Your task to perform on an android device: delete browsing data in the chrome app Image 0: 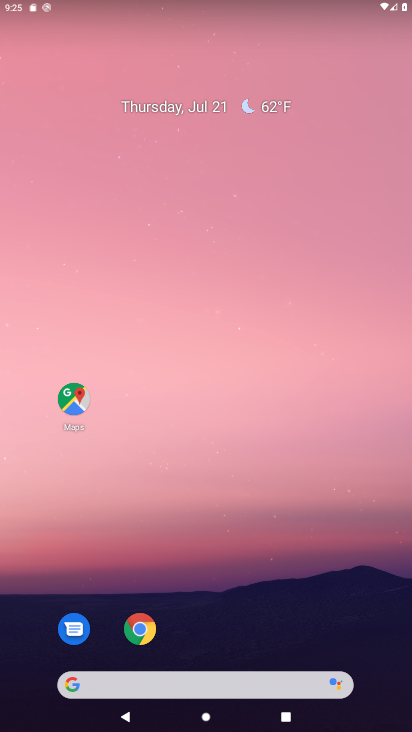
Step 0: drag from (194, 638) to (204, 219)
Your task to perform on an android device: delete browsing data in the chrome app Image 1: 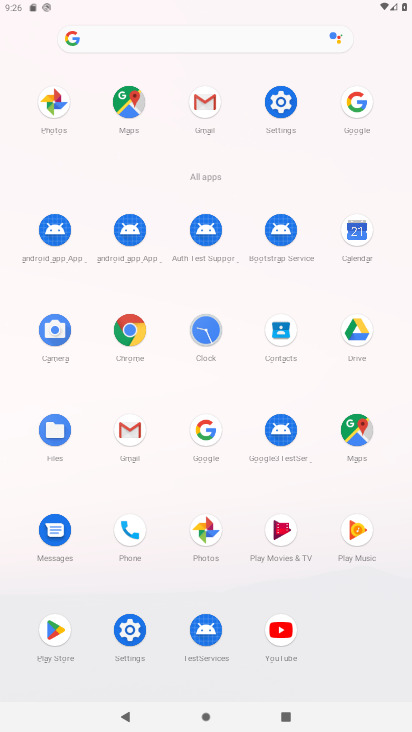
Step 1: click (133, 331)
Your task to perform on an android device: delete browsing data in the chrome app Image 2: 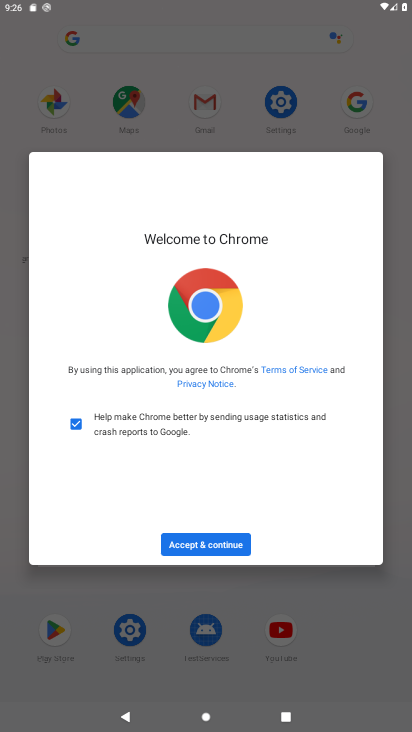
Step 2: click (208, 546)
Your task to perform on an android device: delete browsing data in the chrome app Image 3: 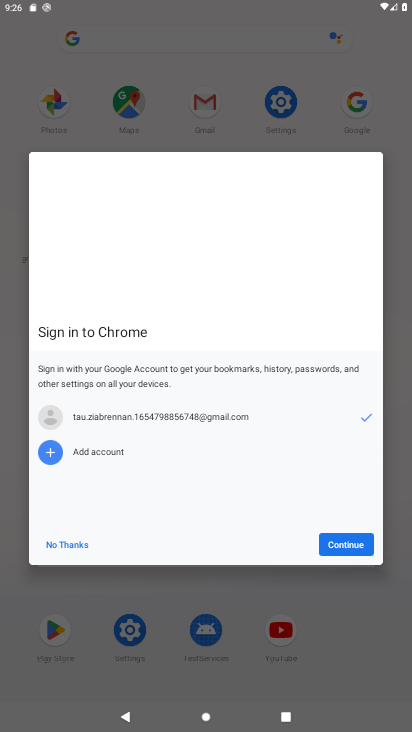
Step 3: click (355, 542)
Your task to perform on an android device: delete browsing data in the chrome app Image 4: 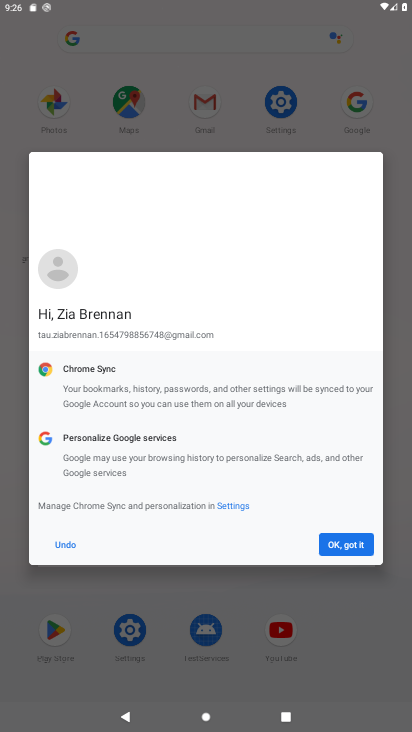
Step 4: click (355, 542)
Your task to perform on an android device: delete browsing data in the chrome app Image 5: 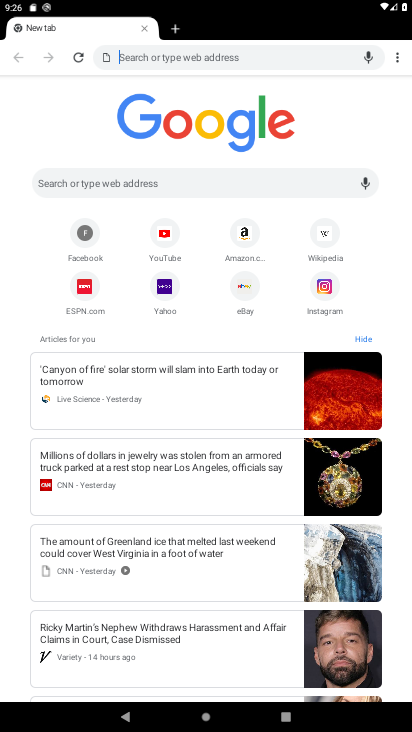
Step 5: click (399, 53)
Your task to perform on an android device: delete browsing data in the chrome app Image 6: 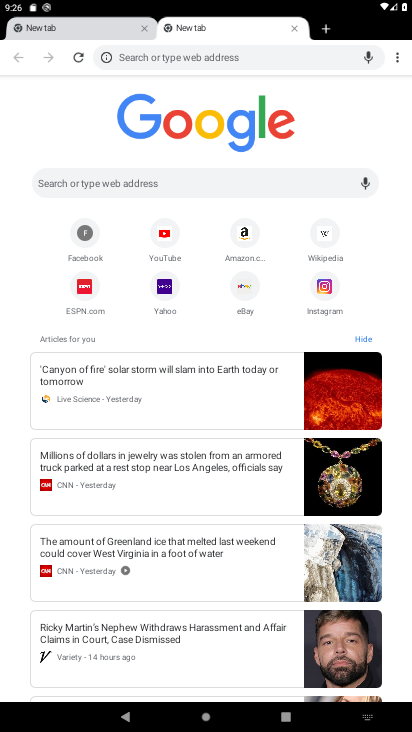
Step 6: click (406, 57)
Your task to perform on an android device: delete browsing data in the chrome app Image 7: 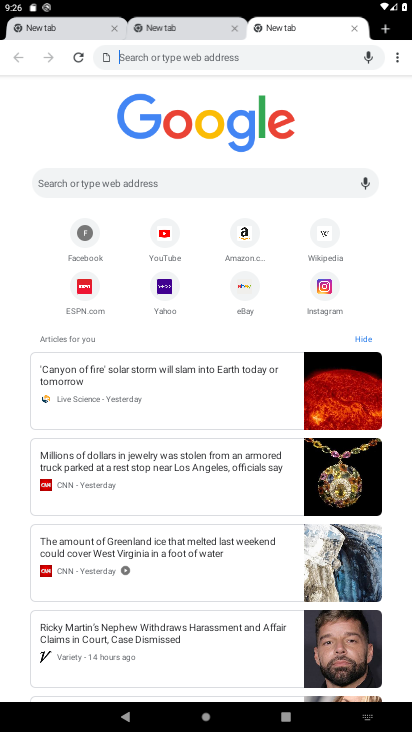
Step 7: click (406, 57)
Your task to perform on an android device: delete browsing data in the chrome app Image 8: 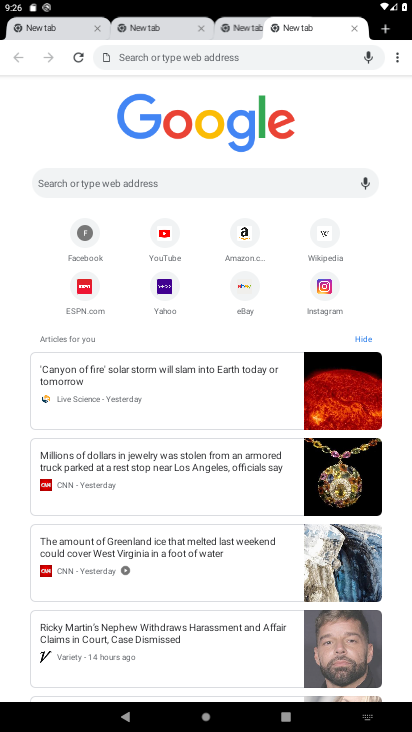
Step 8: click (398, 58)
Your task to perform on an android device: delete browsing data in the chrome app Image 9: 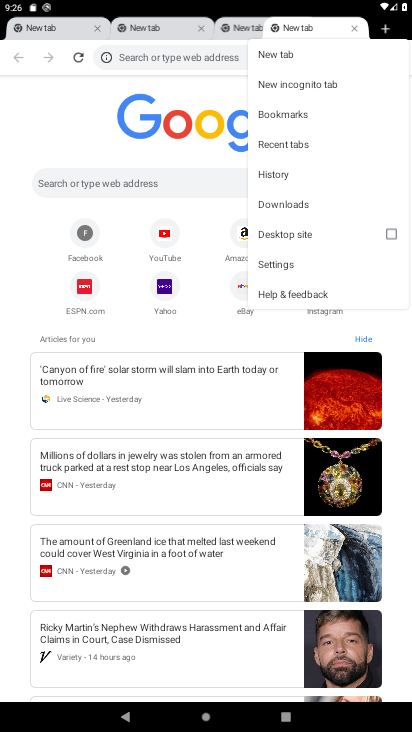
Step 9: click (288, 255)
Your task to perform on an android device: delete browsing data in the chrome app Image 10: 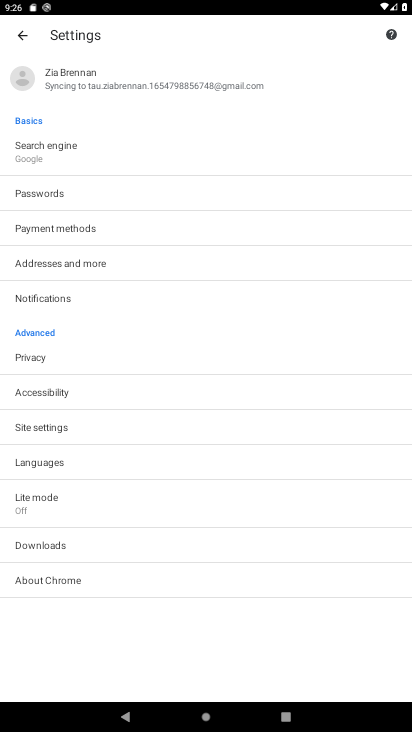
Step 10: click (75, 356)
Your task to perform on an android device: delete browsing data in the chrome app Image 11: 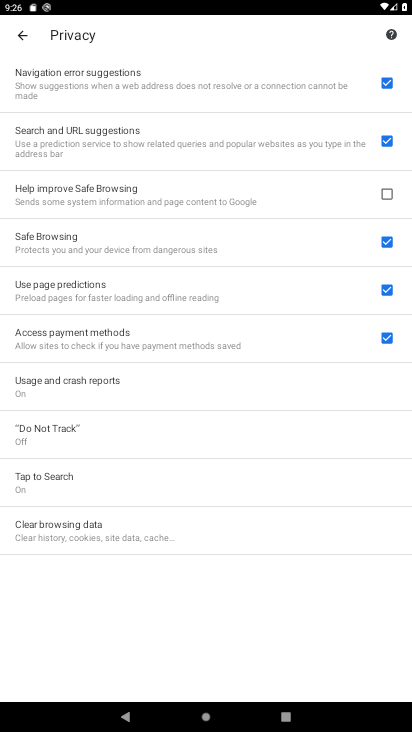
Step 11: click (189, 532)
Your task to perform on an android device: delete browsing data in the chrome app Image 12: 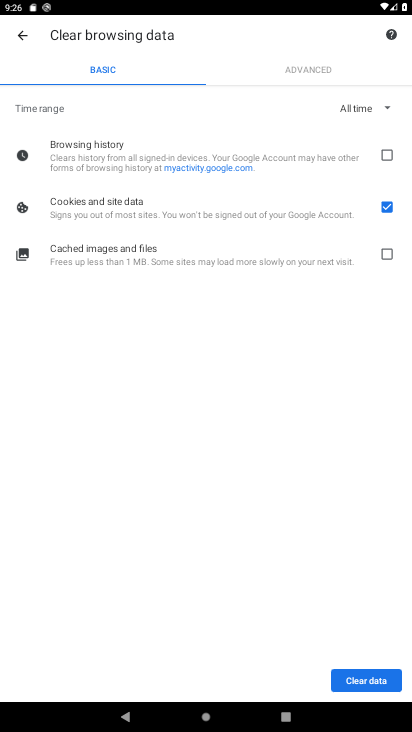
Step 12: click (350, 680)
Your task to perform on an android device: delete browsing data in the chrome app Image 13: 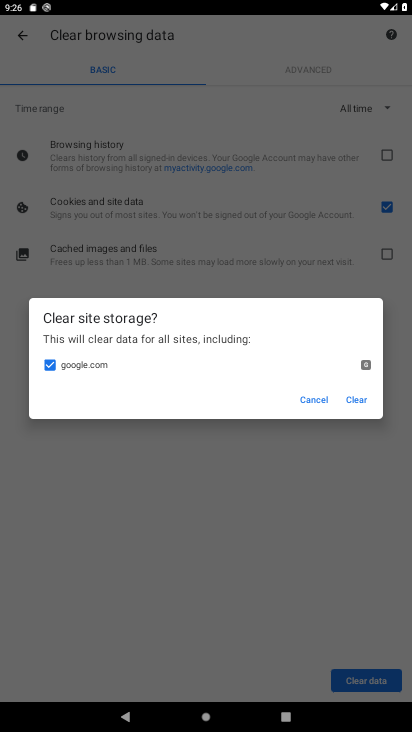
Step 13: click (367, 408)
Your task to perform on an android device: delete browsing data in the chrome app Image 14: 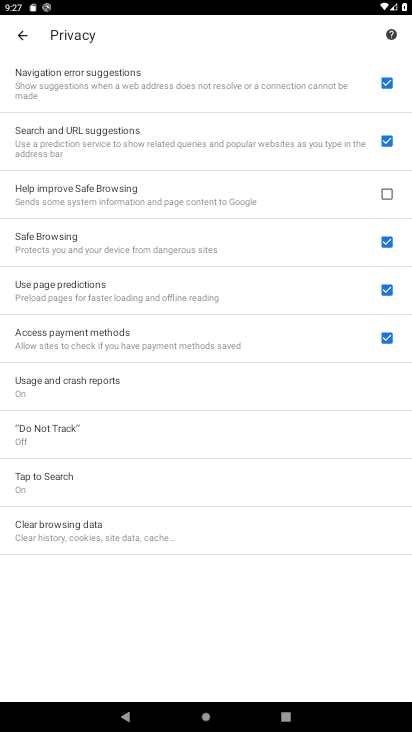
Step 14: task complete